Your task to perform on an android device: turn on airplane mode Image 0: 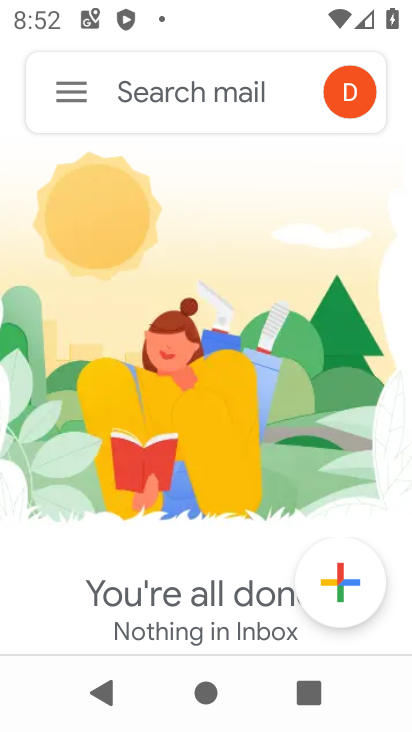
Step 0: drag from (216, 554) to (233, 186)
Your task to perform on an android device: turn on airplane mode Image 1: 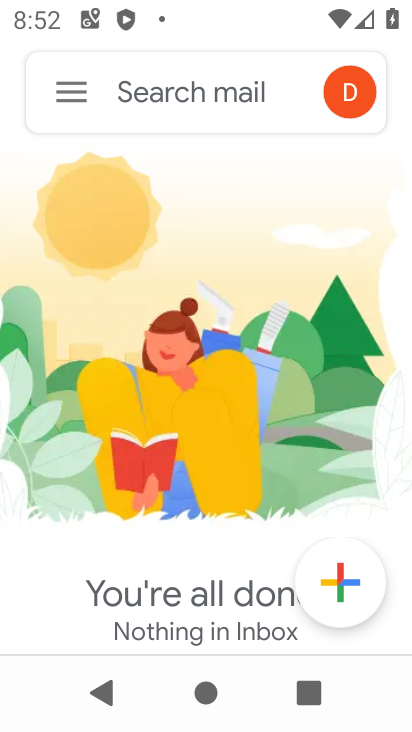
Step 1: press home button
Your task to perform on an android device: turn on airplane mode Image 2: 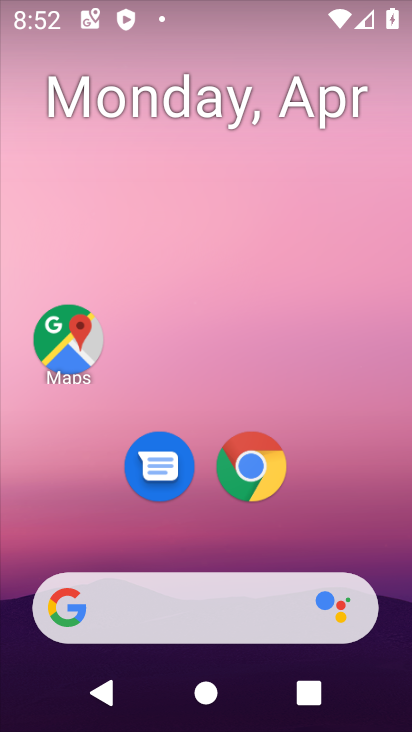
Step 2: drag from (208, 540) to (286, 93)
Your task to perform on an android device: turn on airplane mode Image 3: 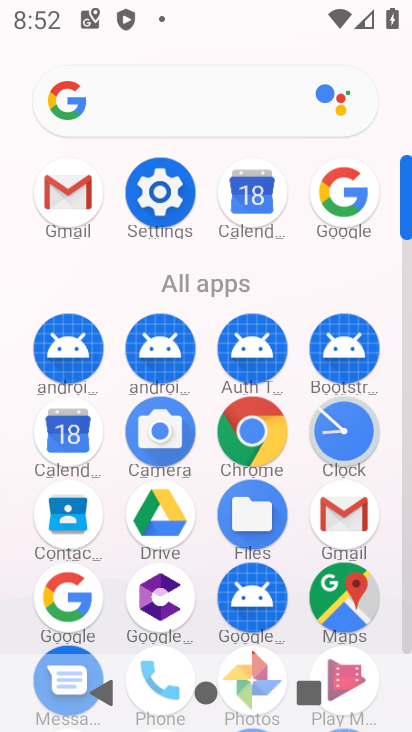
Step 3: click (167, 203)
Your task to perform on an android device: turn on airplane mode Image 4: 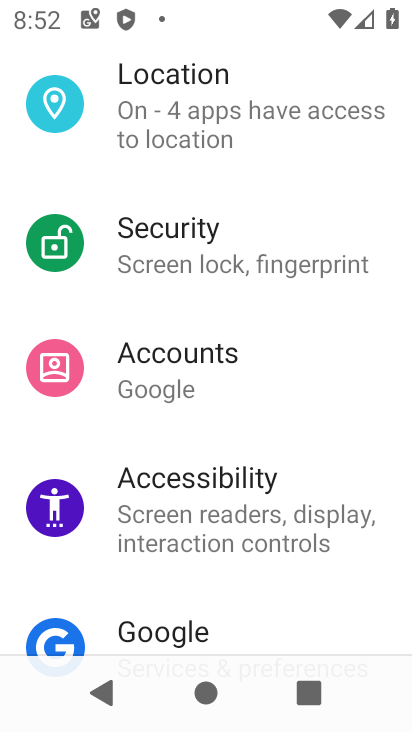
Step 4: drag from (263, 197) to (257, 309)
Your task to perform on an android device: turn on airplane mode Image 5: 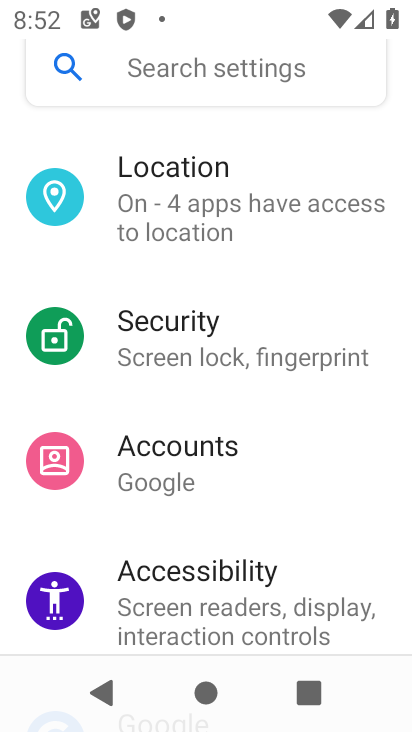
Step 5: drag from (279, 178) to (296, 286)
Your task to perform on an android device: turn on airplane mode Image 6: 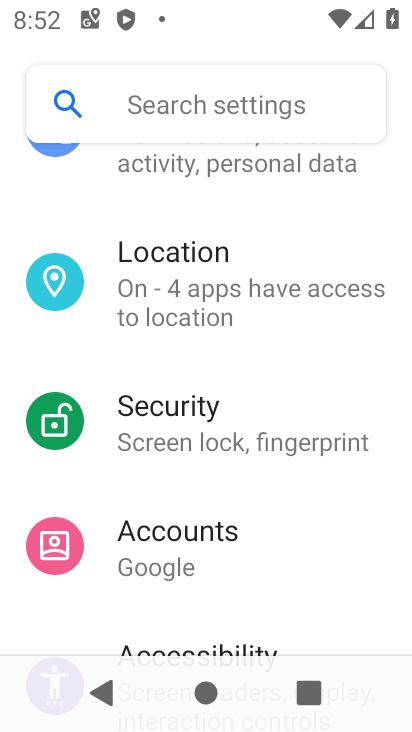
Step 6: drag from (271, 223) to (289, 335)
Your task to perform on an android device: turn on airplane mode Image 7: 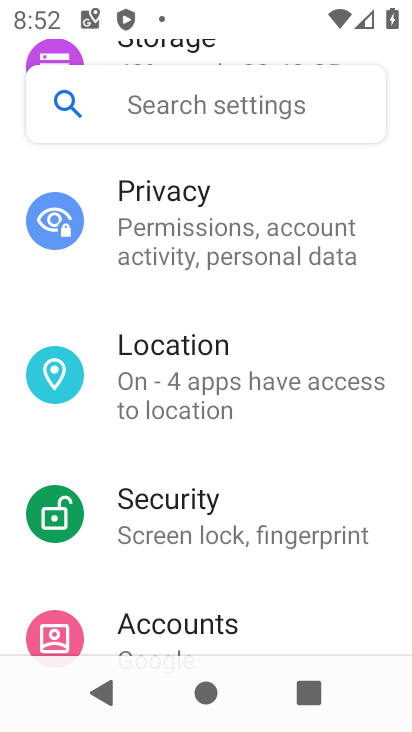
Step 7: drag from (271, 268) to (275, 408)
Your task to perform on an android device: turn on airplane mode Image 8: 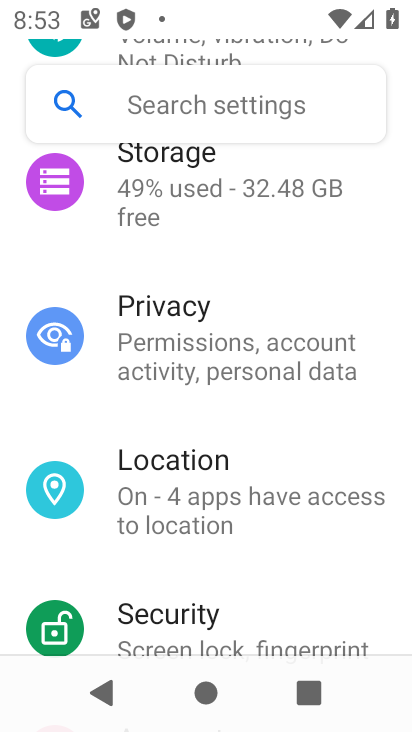
Step 8: drag from (258, 297) to (267, 431)
Your task to perform on an android device: turn on airplane mode Image 9: 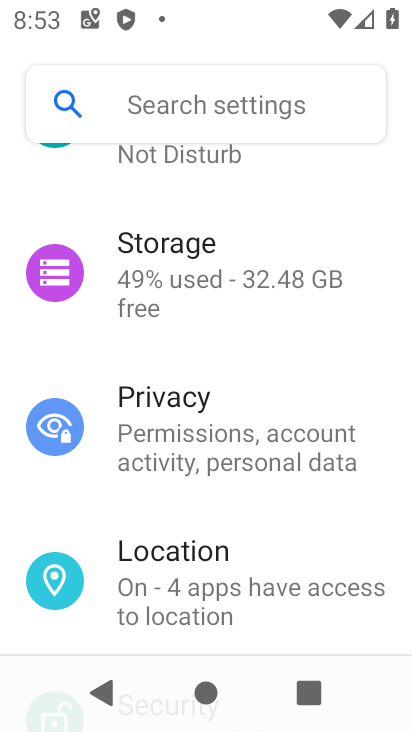
Step 9: drag from (252, 247) to (259, 446)
Your task to perform on an android device: turn on airplane mode Image 10: 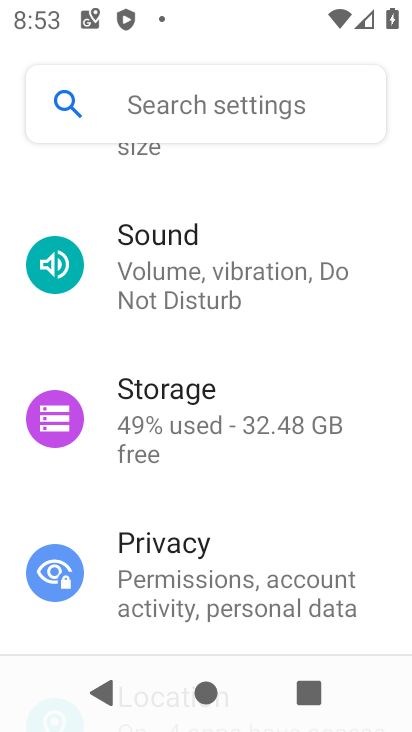
Step 10: drag from (256, 246) to (261, 414)
Your task to perform on an android device: turn on airplane mode Image 11: 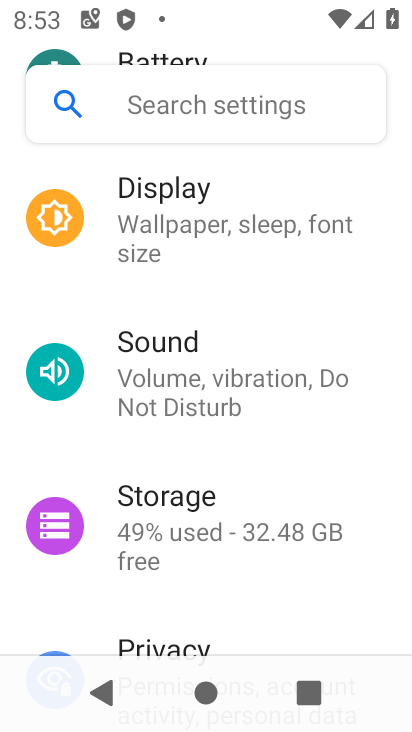
Step 11: drag from (251, 295) to (249, 468)
Your task to perform on an android device: turn on airplane mode Image 12: 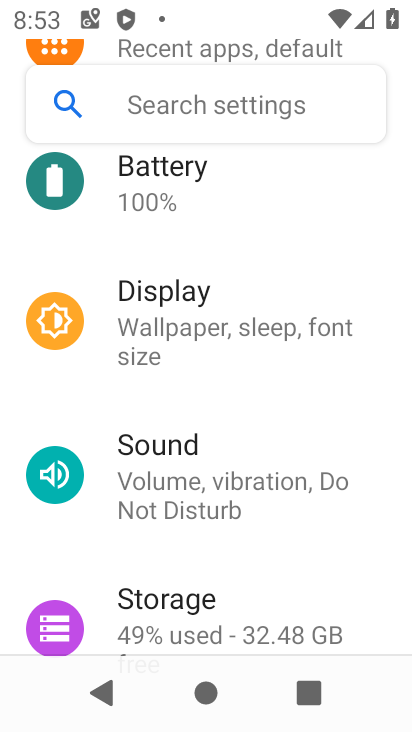
Step 12: drag from (261, 265) to (256, 448)
Your task to perform on an android device: turn on airplane mode Image 13: 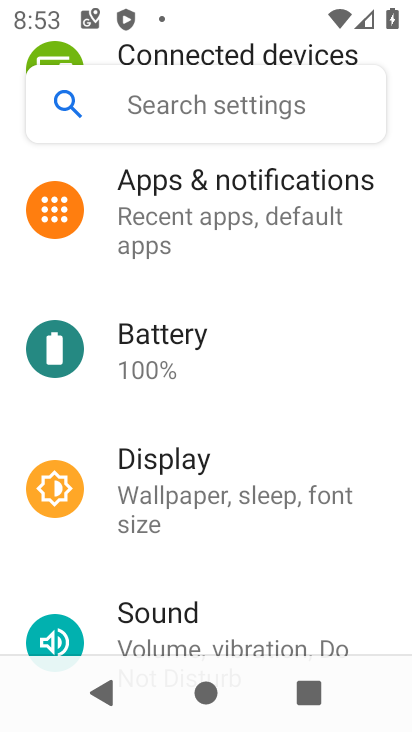
Step 13: drag from (263, 312) to (248, 442)
Your task to perform on an android device: turn on airplane mode Image 14: 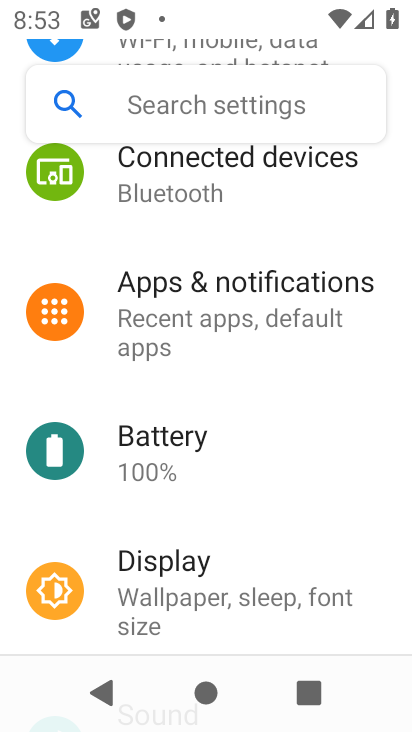
Step 14: drag from (254, 260) to (233, 389)
Your task to perform on an android device: turn on airplane mode Image 15: 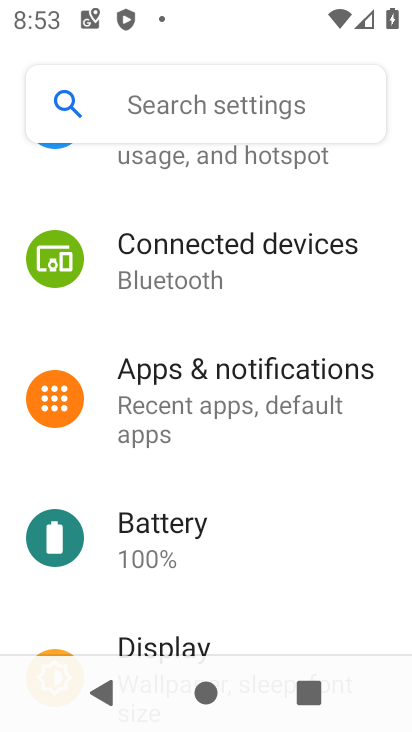
Step 15: drag from (261, 214) to (266, 408)
Your task to perform on an android device: turn on airplane mode Image 16: 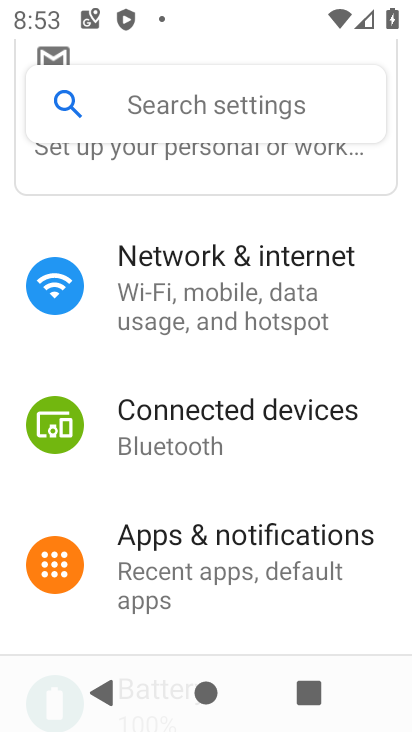
Step 16: click (279, 259)
Your task to perform on an android device: turn on airplane mode Image 17: 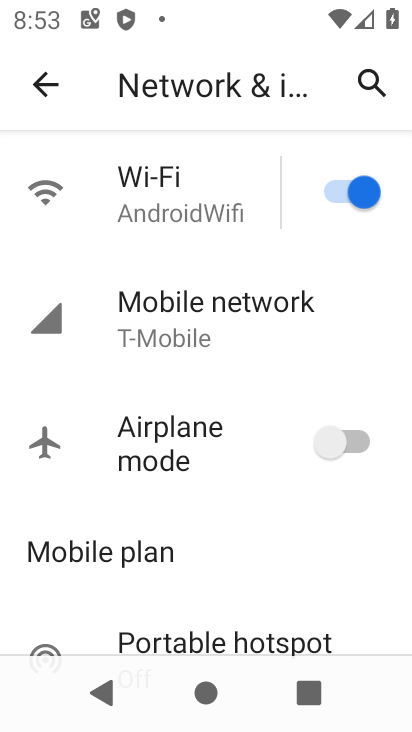
Step 17: click (350, 442)
Your task to perform on an android device: turn on airplane mode Image 18: 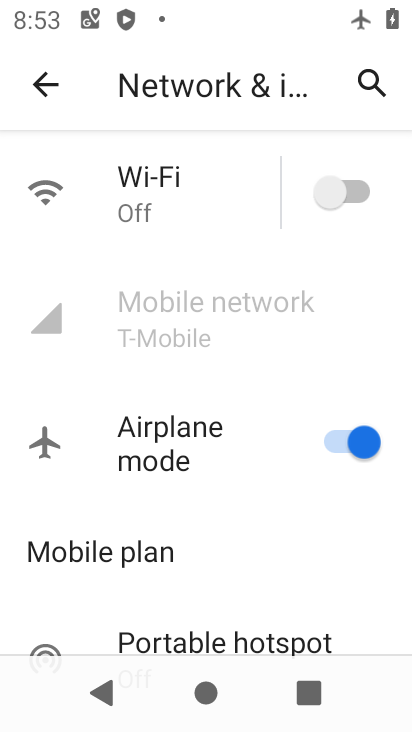
Step 18: task complete